Your task to perform on an android device: turn on location history Image 0: 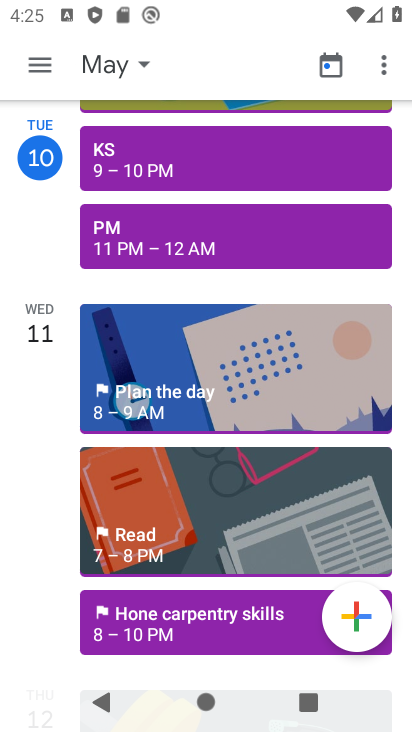
Step 0: press home button
Your task to perform on an android device: turn on location history Image 1: 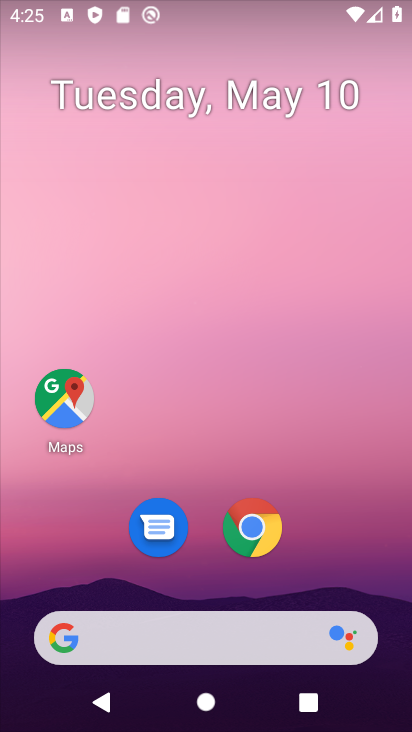
Step 1: drag from (343, 526) to (302, 32)
Your task to perform on an android device: turn on location history Image 2: 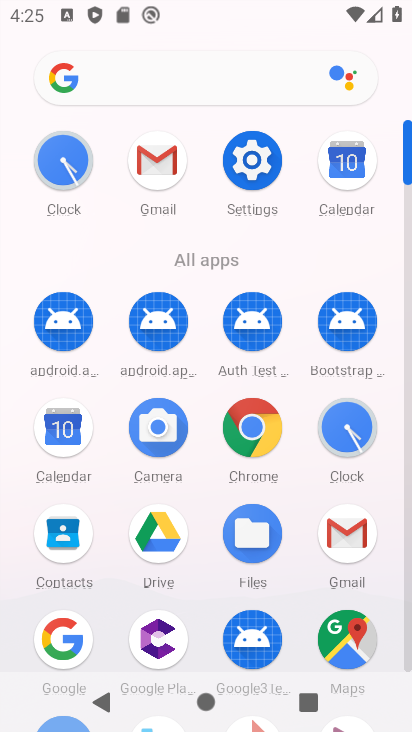
Step 2: click (257, 152)
Your task to perform on an android device: turn on location history Image 3: 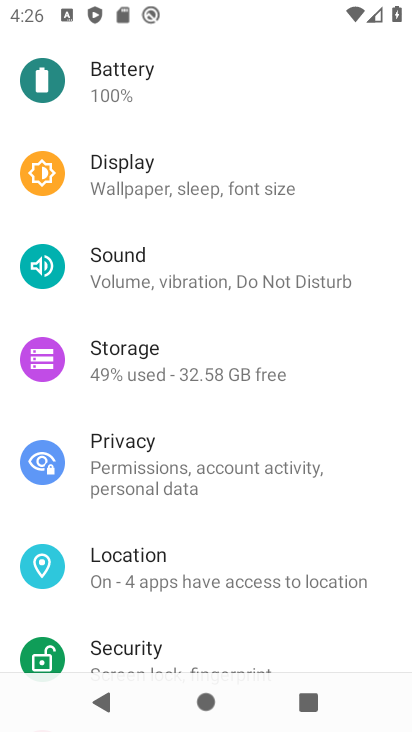
Step 3: click (191, 573)
Your task to perform on an android device: turn on location history Image 4: 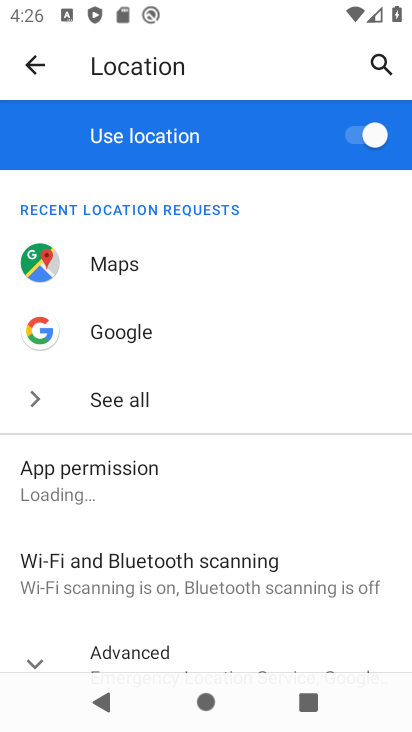
Step 4: click (28, 656)
Your task to perform on an android device: turn on location history Image 5: 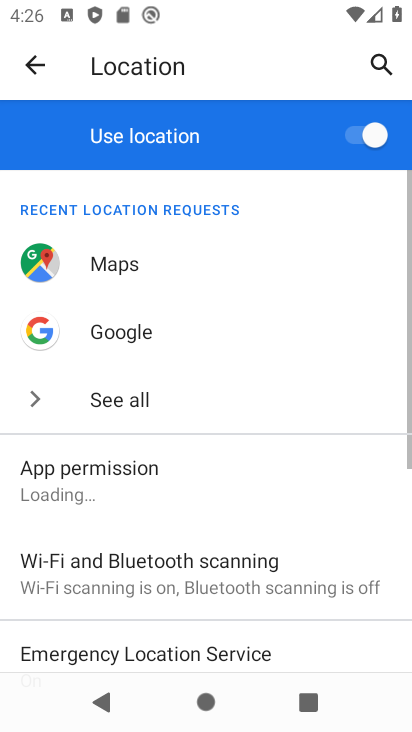
Step 5: drag from (234, 499) to (243, 39)
Your task to perform on an android device: turn on location history Image 6: 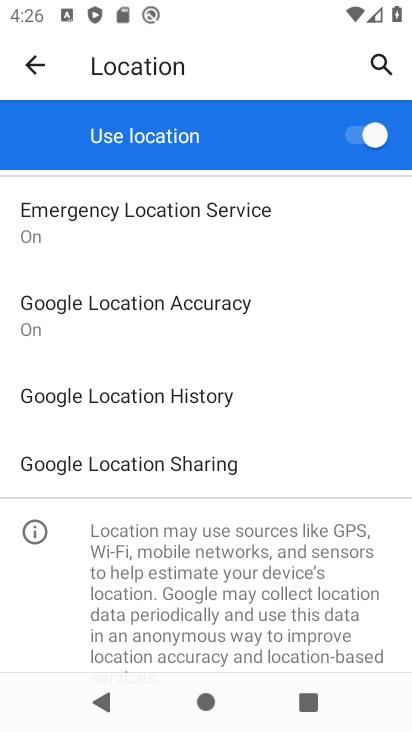
Step 6: click (192, 393)
Your task to perform on an android device: turn on location history Image 7: 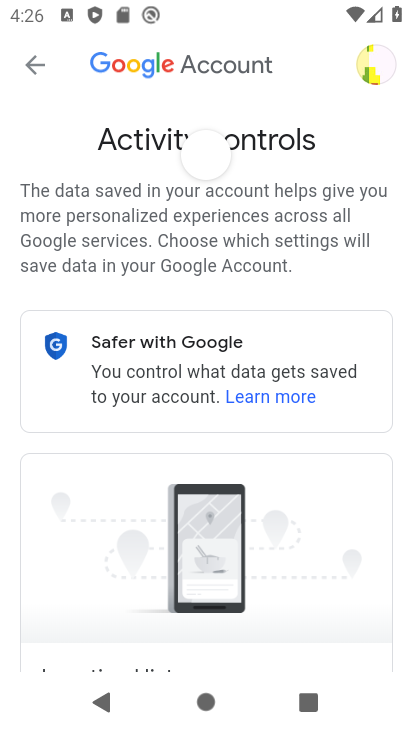
Step 7: drag from (302, 537) to (263, 134)
Your task to perform on an android device: turn on location history Image 8: 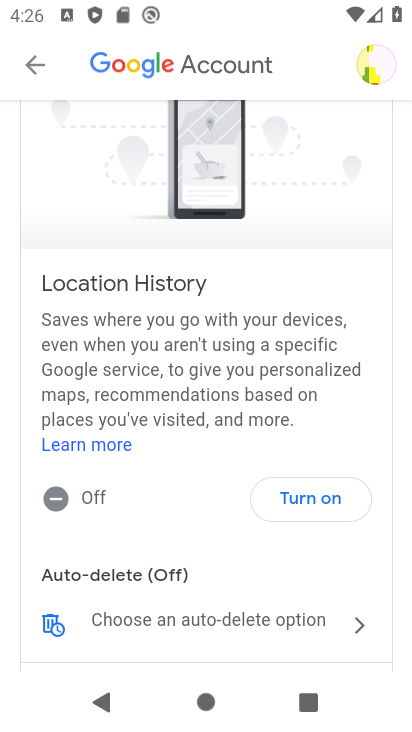
Step 8: click (320, 496)
Your task to perform on an android device: turn on location history Image 9: 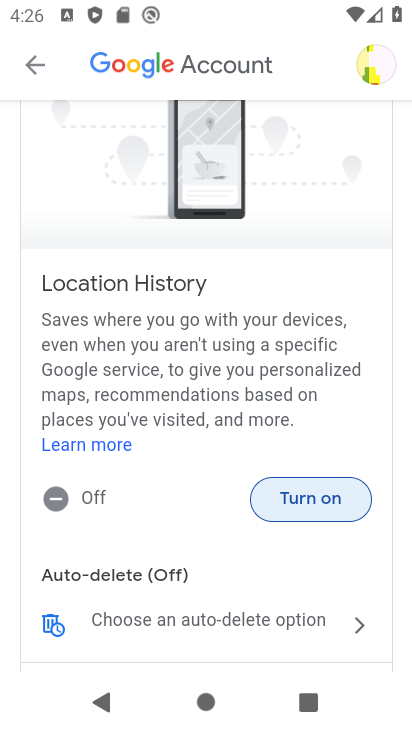
Step 9: click (320, 494)
Your task to perform on an android device: turn on location history Image 10: 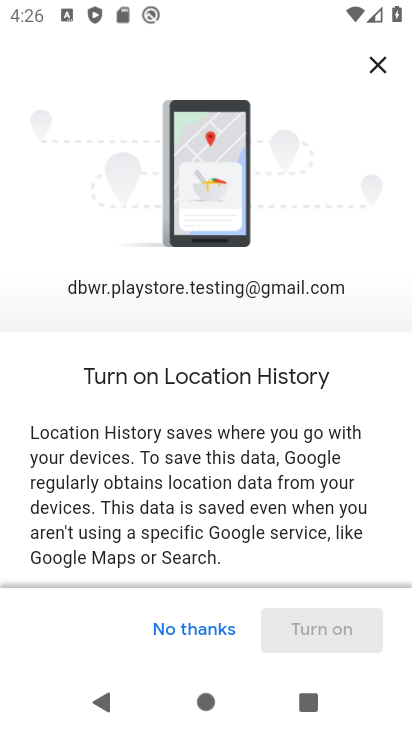
Step 10: drag from (300, 543) to (302, 39)
Your task to perform on an android device: turn on location history Image 11: 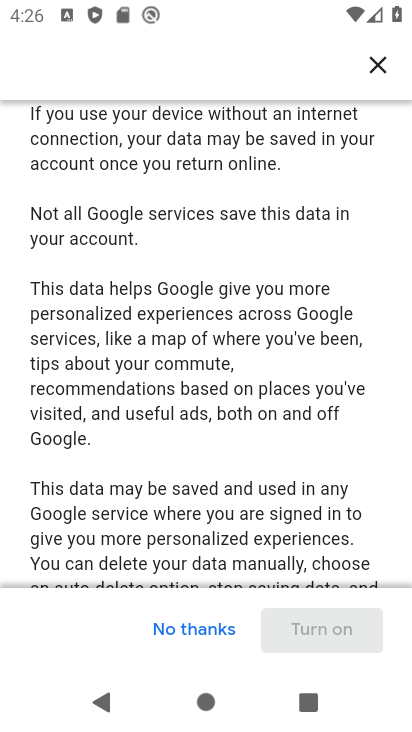
Step 11: drag from (307, 497) to (290, 159)
Your task to perform on an android device: turn on location history Image 12: 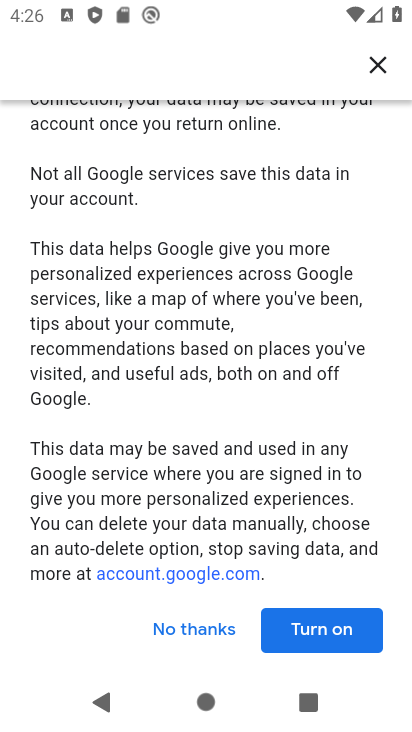
Step 12: click (336, 628)
Your task to perform on an android device: turn on location history Image 13: 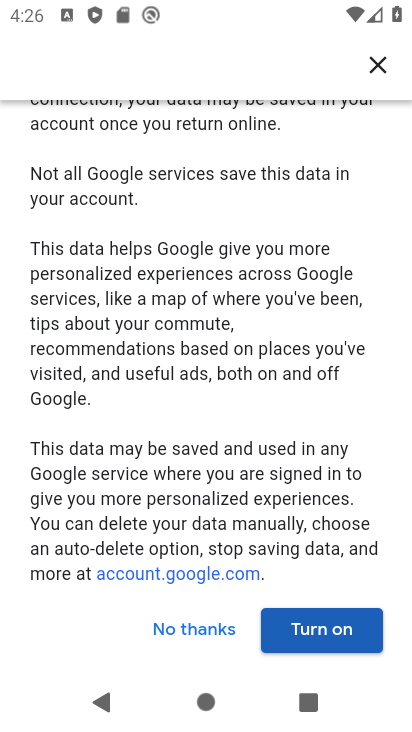
Step 13: click (336, 628)
Your task to perform on an android device: turn on location history Image 14: 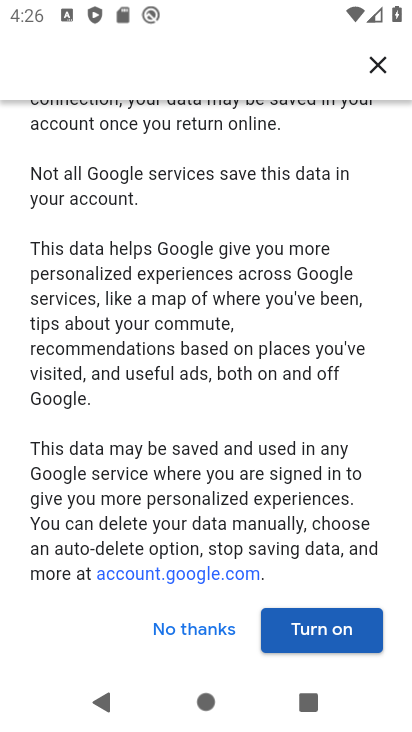
Step 14: click (311, 623)
Your task to perform on an android device: turn on location history Image 15: 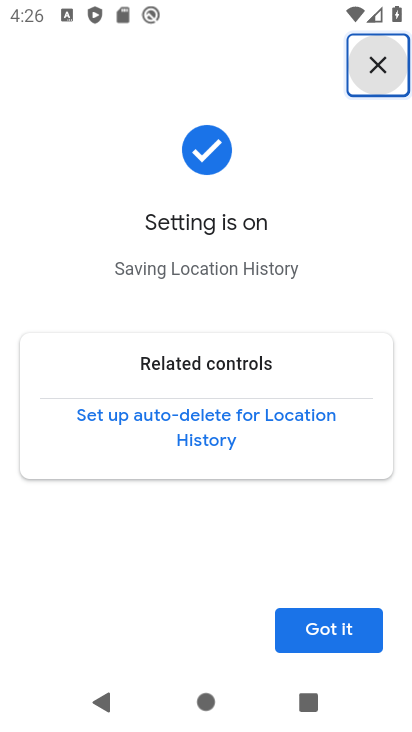
Step 15: click (343, 632)
Your task to perform on an android device: turn on location history Image 16: 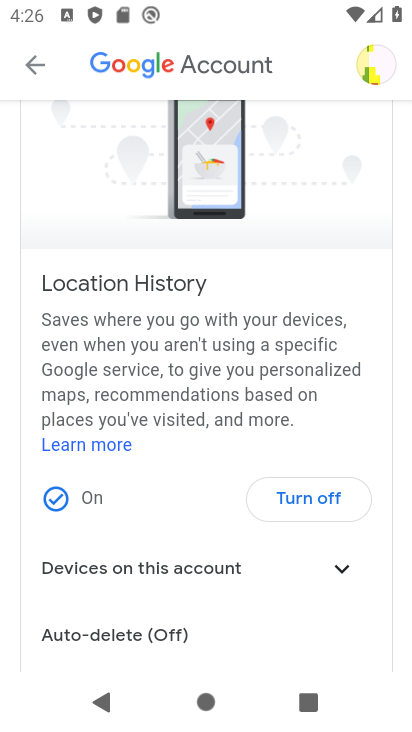
Step 16: task complete